Your task to perform on an android device: empty trash in google photos Image 0: 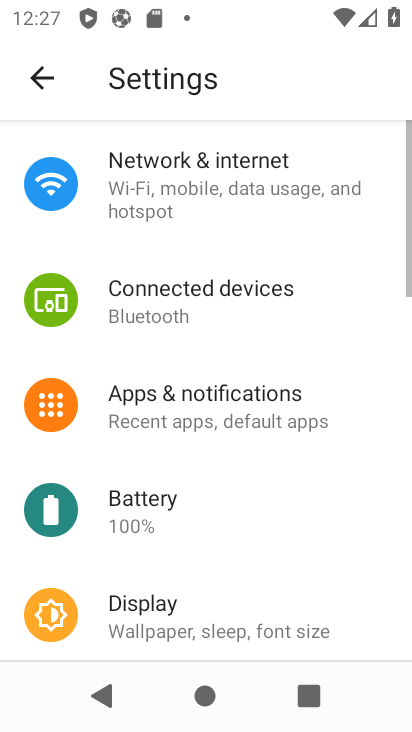
Step 0: press home button
Your task to perform on an android device: empty trash in google photos Image 1: 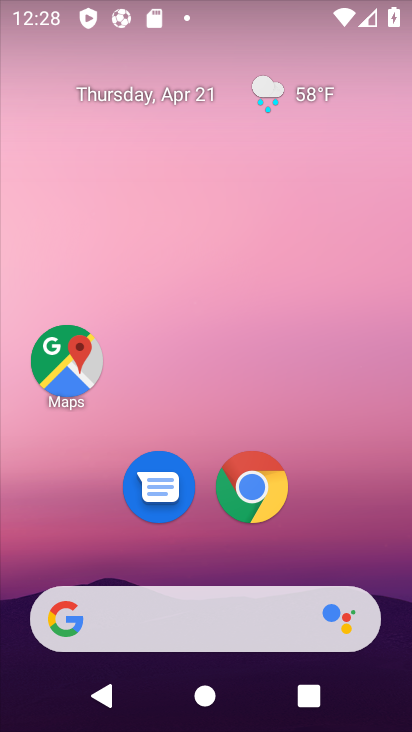
Step 1: drag from (327, 529) to (320, 2)
Your task to perform on an android device: empty trash in google photos Image 2: 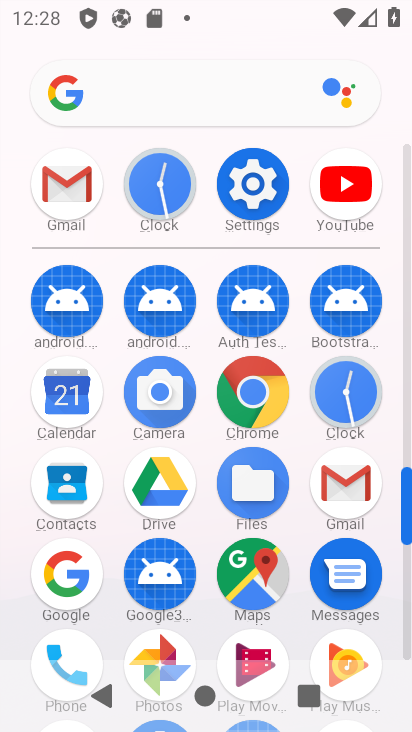
Step 2: click (163, 648)
Your task to perform on an android device: empty trash in google photos Image 3: 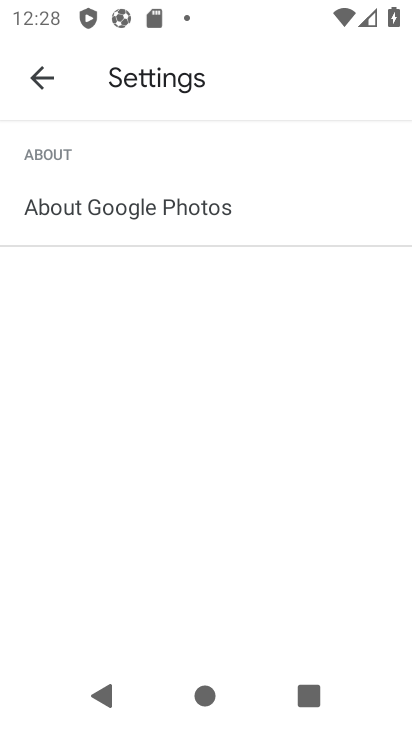
Step 3: click (45, 77)
Your task to perform on an android device: empty trash in google photos Image 4: 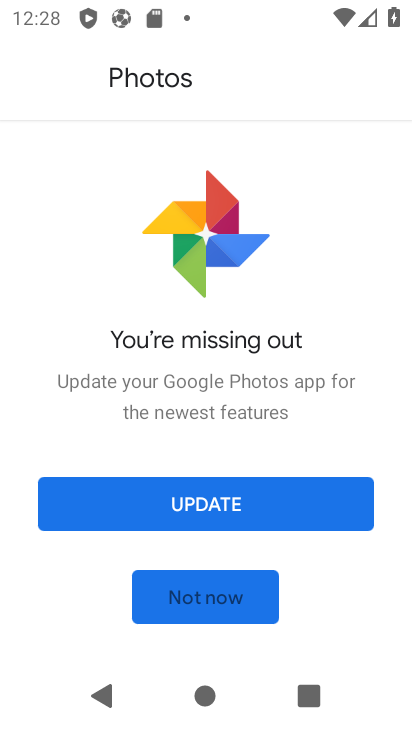
Step 4: click (299, 424)
Your task to perform on an android device: empty trash in google photos Image 5: 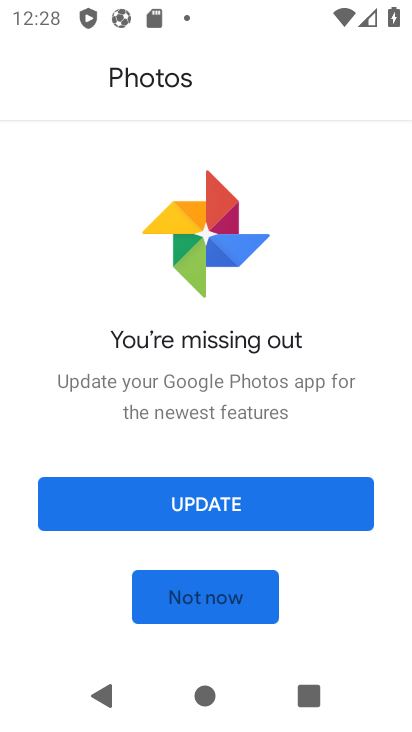
Step 5: click (197, 598)
Your task to perform on an android device: empty trash in google photos Image 6: 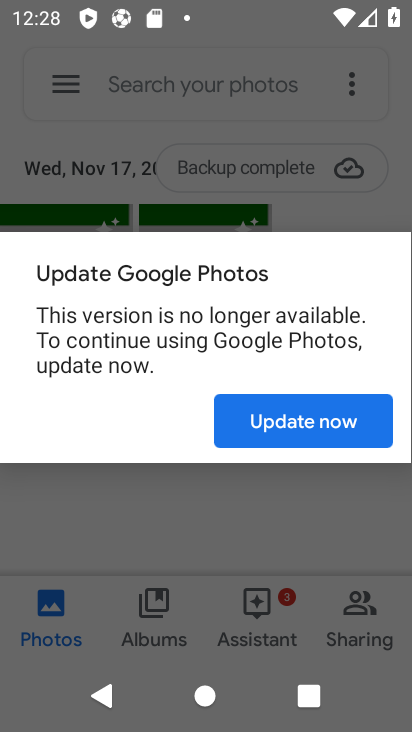
Step 6: click (282, 427)
Your task to perform on an android device: empty trash in google photos Image 7: 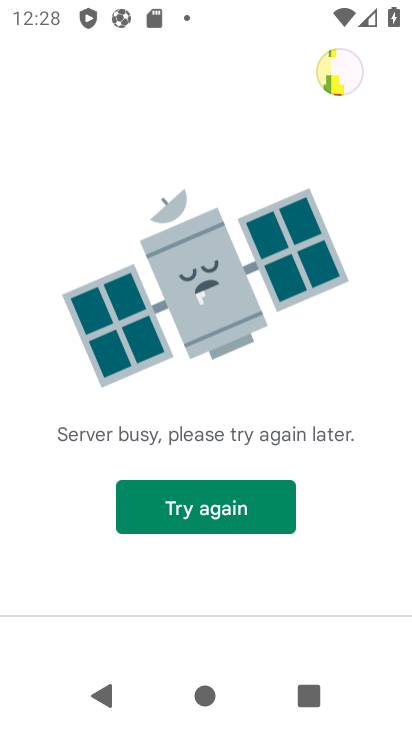
Step 7: click (94, 696)
Your task to perform on an android device: empty trash in google photos Image 8: 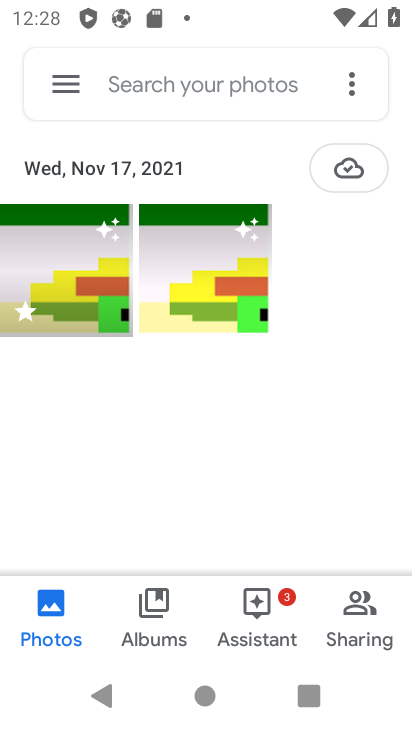
Step 8: click (66, 89)
Your task to perform on an android device: empty trash in google photos Image 9: 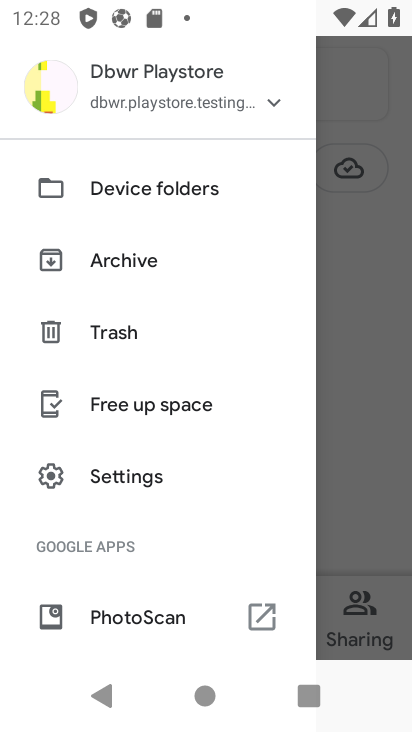
Step 9: click (100, 335)
Your task to perform on an android device: empty trash in google photos Image 10: 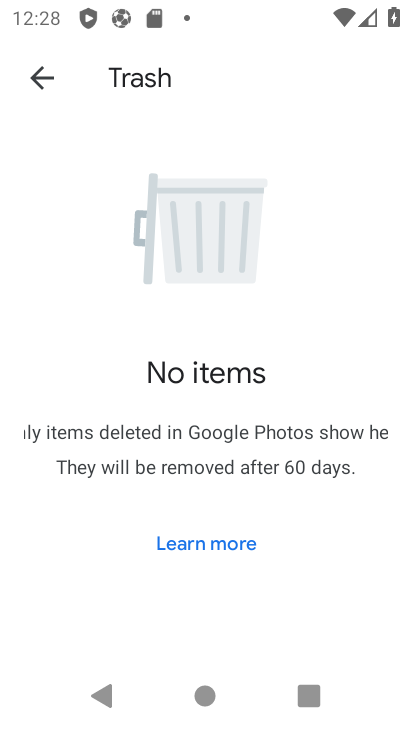
Step 10: task complete